Your task to perform on an android device: Open Wikipedia Image 0: 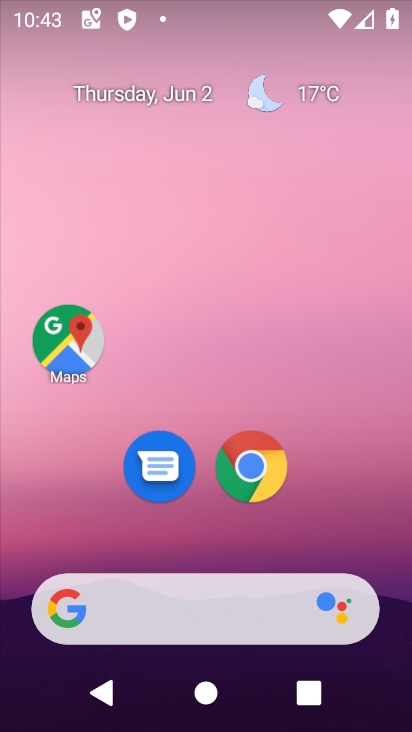
Step 0: click (243, 464)
Your task to perform on an android device: Open Wikipedia Image 1: 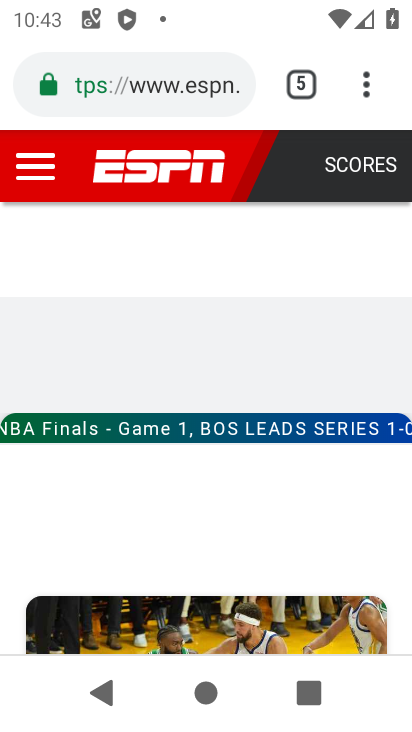
Step 1: click (368, 72)
Your task to perform on an android device: Open Wikipedia Image 2: 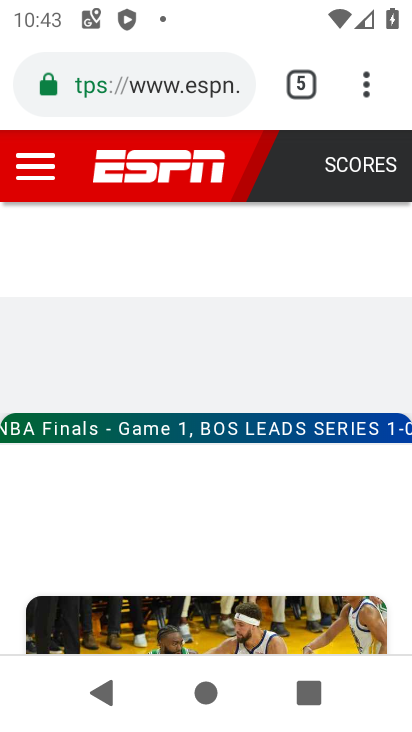
Step 2: click (358, 80)
Your task to perform on an android device: Open Wikipedia Image 3: 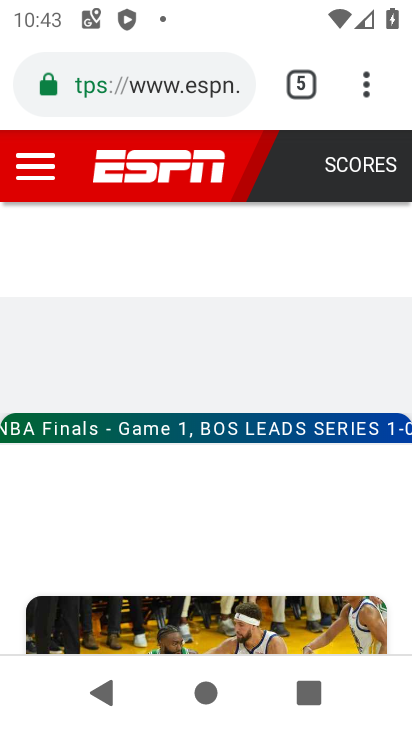
Step 3: click (376, 73)
Your task to perform on an android device: Open Wikipedia Image 4: 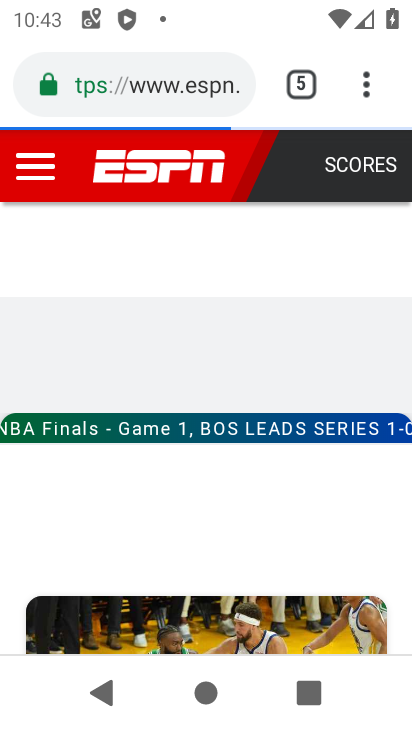
Step 4: click (357, 84)
Your task to perform on an android device: Open Wikipedia Image 5: 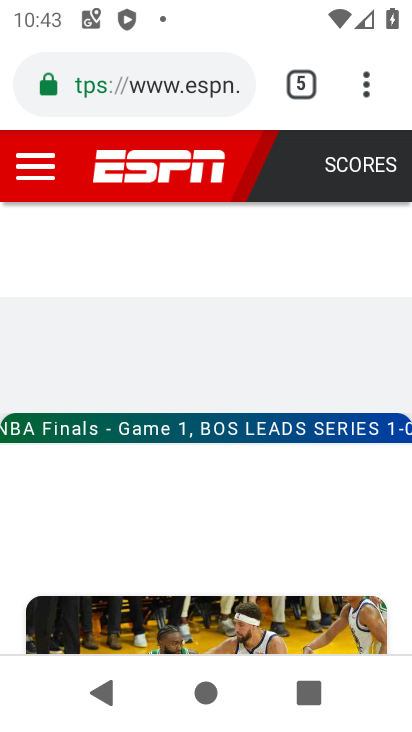
Step 5: click (359, 82)
Your task to perform on an android device: Open Wikipedia Image 6: 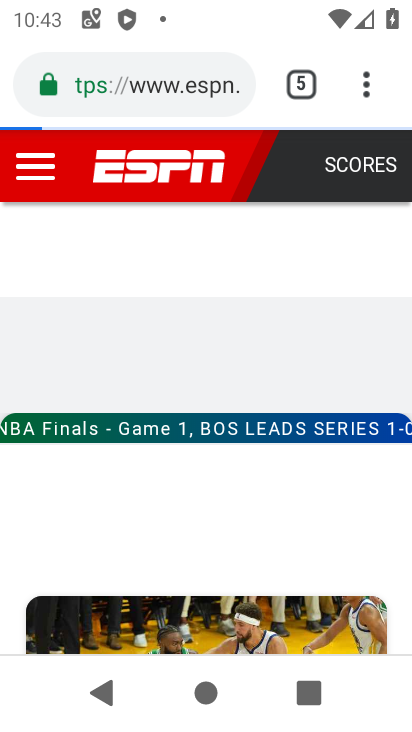
Step 6: click (359, 82)
Your task to perform on an android device: Open Wikipedia Image 7: 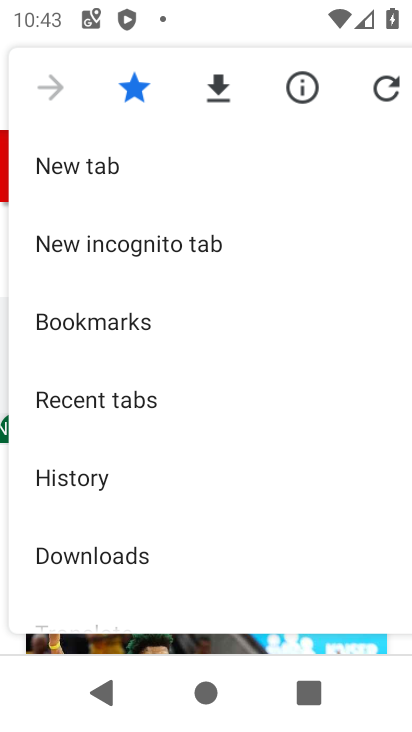
Step 7: click (136, 167)
Your task to perform on an android device: Open Wikipedia Image 8: 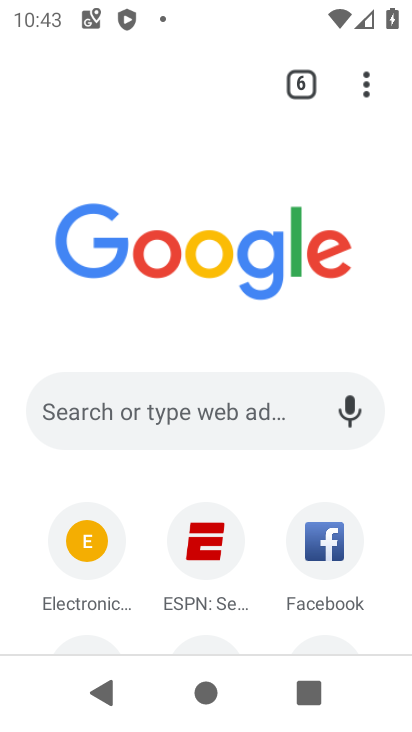
Step 8: drag from (261, 522) to (289, 255)
Your task to perform on an android device: Open Wikipedia Image 9: 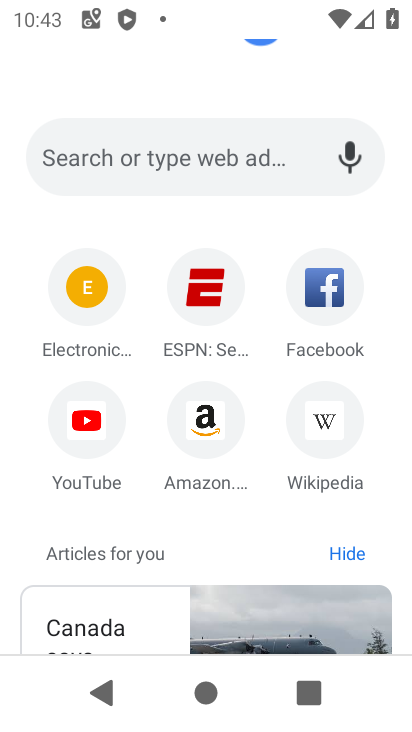
Step 9: click (325, 417)
Your task to perform on an android device: Open Wikipedia Image 10: 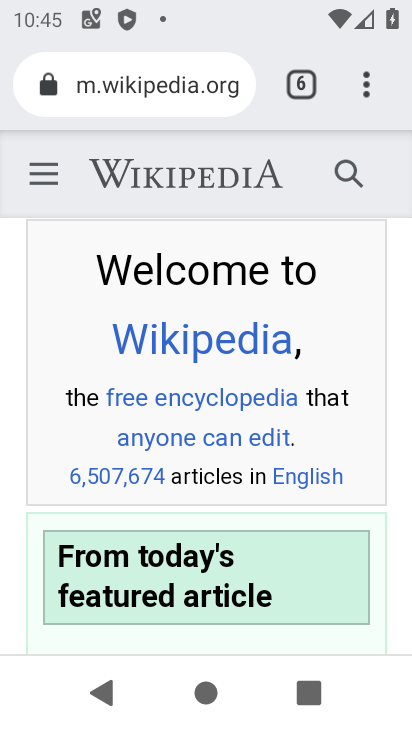
Step 10: task complete